Your task to perform on an android device: turn on the 12-hour format for clock Image 0: 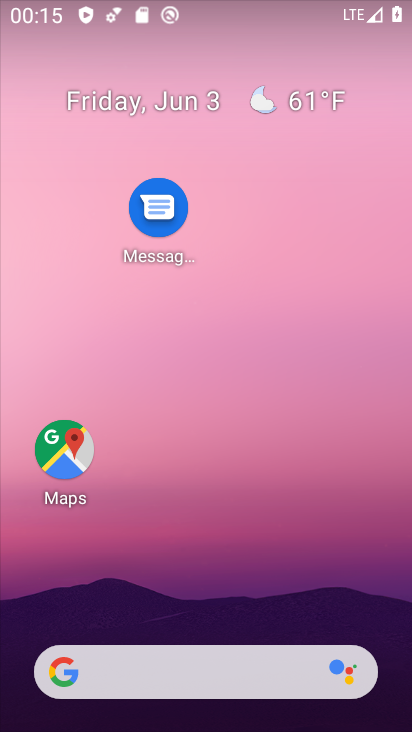
Step 0: drag from (248, 637) to (141, 30)
Your task to perform on an android device: turn on the 12-hour format for clock Image 1: 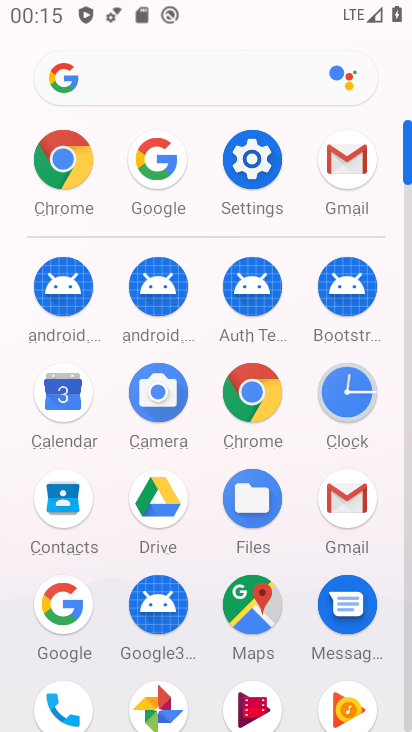
Step 1: click (349, 385)
Your task to perform on an android device: turn on the 12-hour format for clock Image 2: 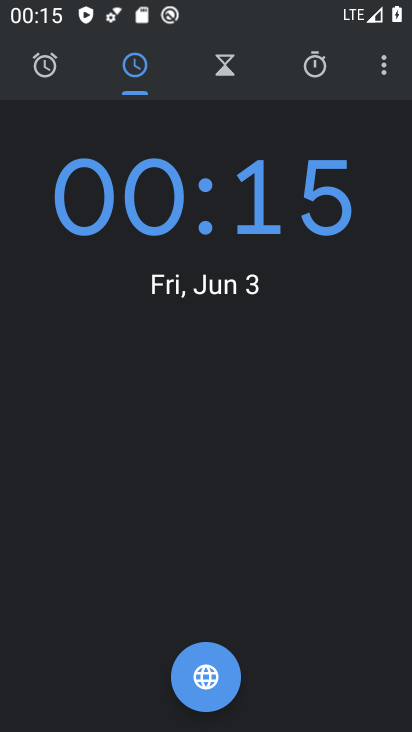
Step 2: drag from (392, 69) to (329, 121)
Your task to perform on an android device: turn on the 12-hour format for clock Image 3: 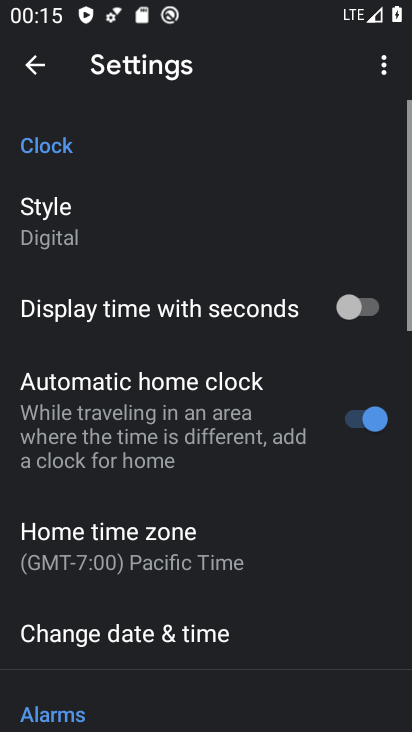
Step 3: click (160, 644)
Your task to perform on an android device: turn on the 12-hour format for clock Image 4: 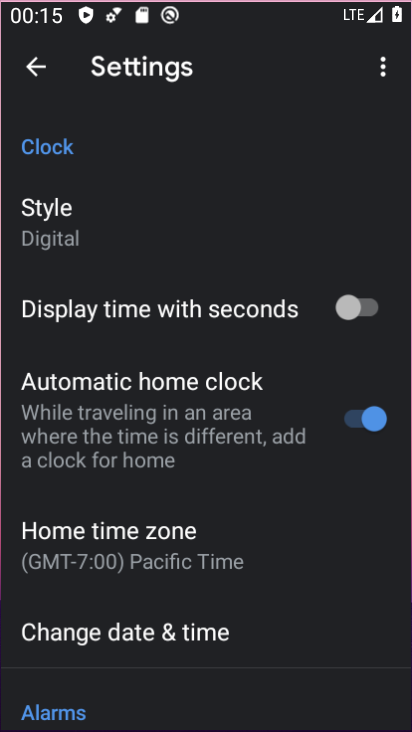
Step 4: drag from (158, 640) to (134, 49)
Your task to perform on an android device: turn on the 12-hour format for clock Image 5: 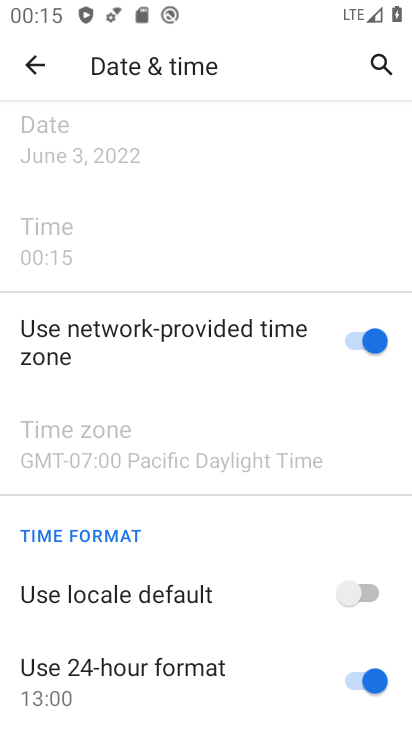
Step 5: click (370, 680)
Your task to perform on an android device: turn on the 12-hour format for clock Image 6: 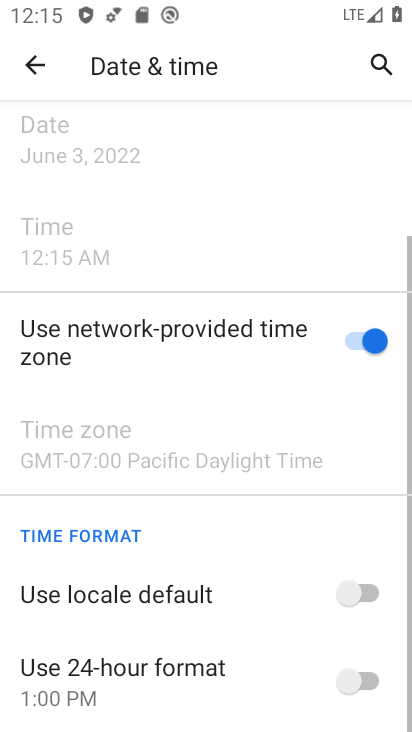
Step 6: task complete